Your task to perform on an android device: turn on notifications settings in the gmail app Image 0: 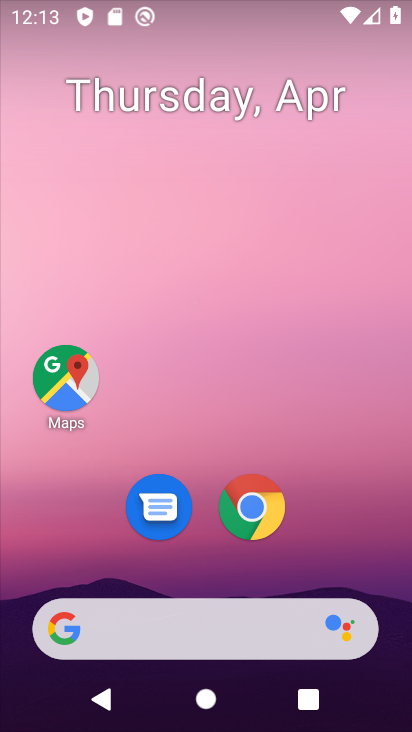
Step 0: drag from (344, 561) to (304, 6)
Your task to perform on an android device: turn on notifications settings in the gmail app Image 1: 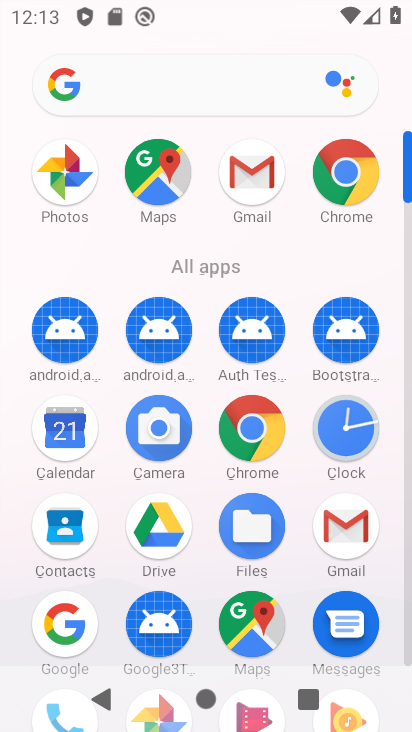
Step 1: click (252, 174)
Your task to perform on an android device: turn on notifications settings in the gmail app Image 2: 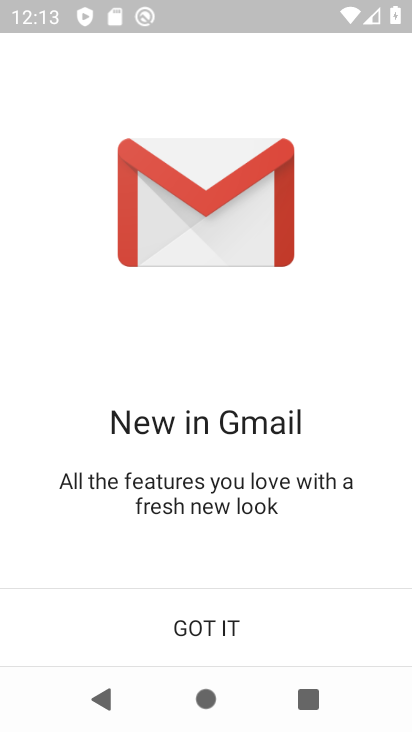
Step 2: click (204, 625)
Your task to perform on an android device: turn on notifications settings in the gmail app Image 3: 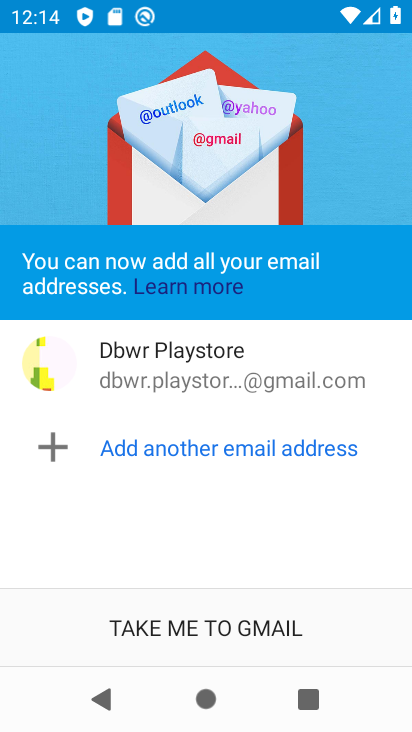
Step 3: click (207, 621)
Your task to perform on an android device: turn on notifications settings in the gmail app Image 4: 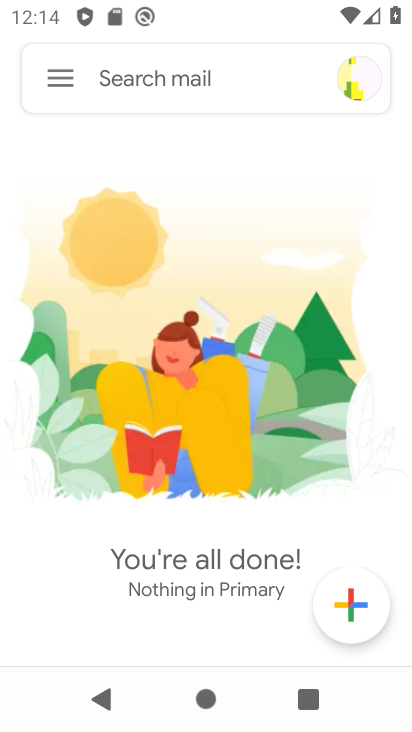
Step 4: click (65, 78)
Your task to perform on an android device: turn on notifications settings in the gmail app Image 5: 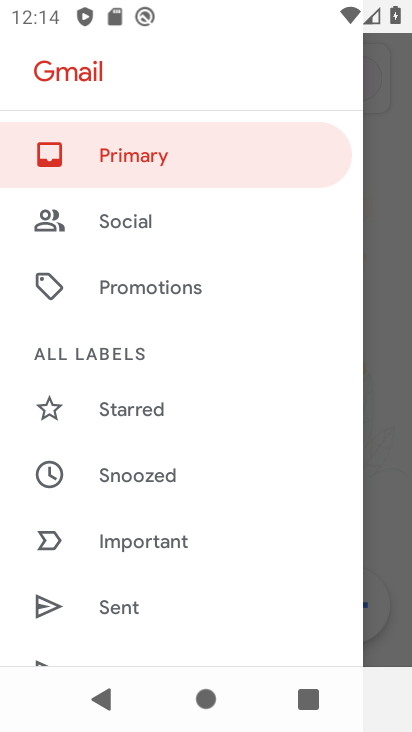
Step 5: drag from (196, 543) to (232, 419)
Your task to perform on an android device: turn on notifications settings in the gmail app Image 6: 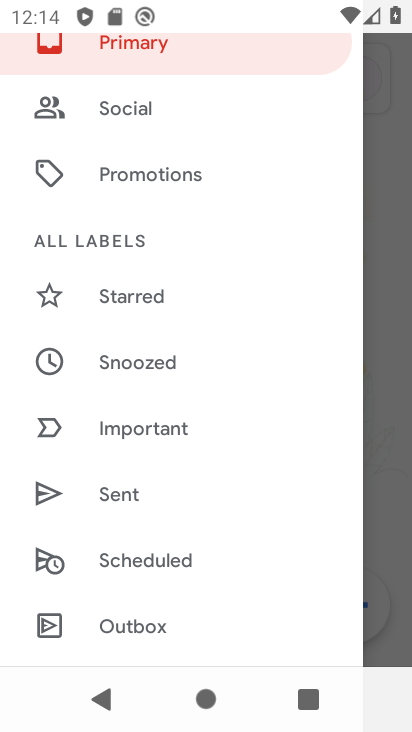
Step 6: drag from (203, 554) to (236, 470)
Your task to perform on an android device: turn on notifications settings in the gmail app Image 7: 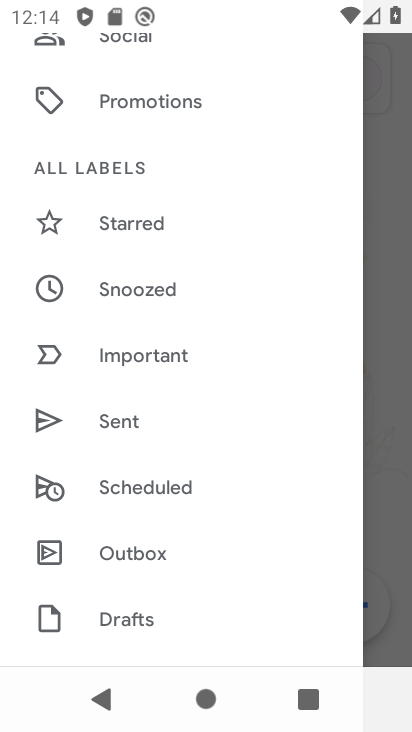
Step 7: drag from (201, 566) to (231, 456)
Your task to perform on an android device: turn on notifications settings in the gmail app Image 8: 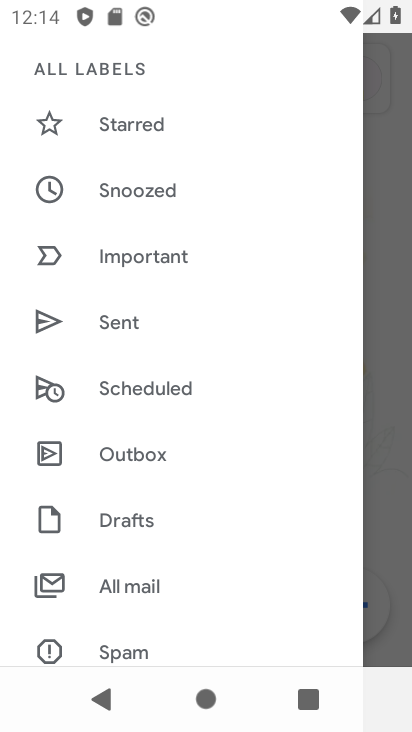
Step 8: drag from (204, 561) to (237, 464)
Your task to perform on an android device: turn on notifications settings in the gmail app Image 9: 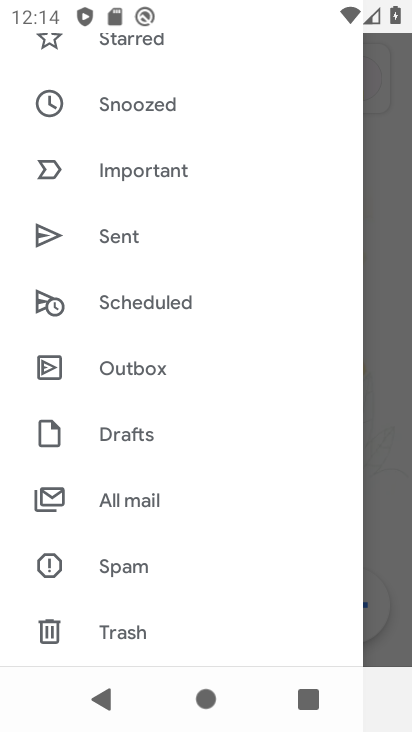
Step 9: drag from (208, 566) to (234, 470)
Your task to perform on an android device: turn on notifications settings in the gmail app Image 10: 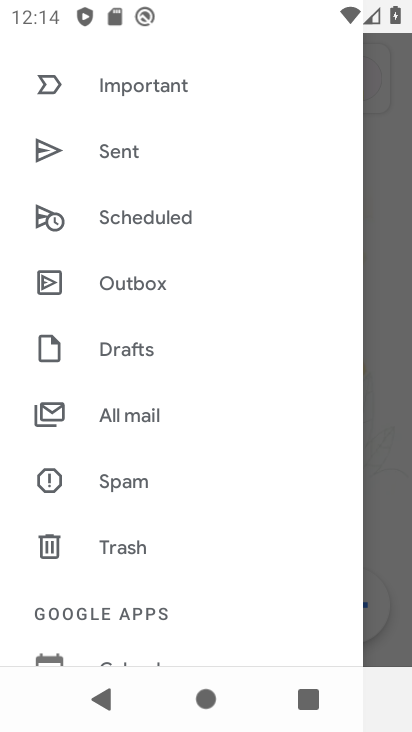
Step 10: drag from (199, 574) to (228, 490)
Your task to perform on an android device: turn on notifications settings in the gmail app Image 11: 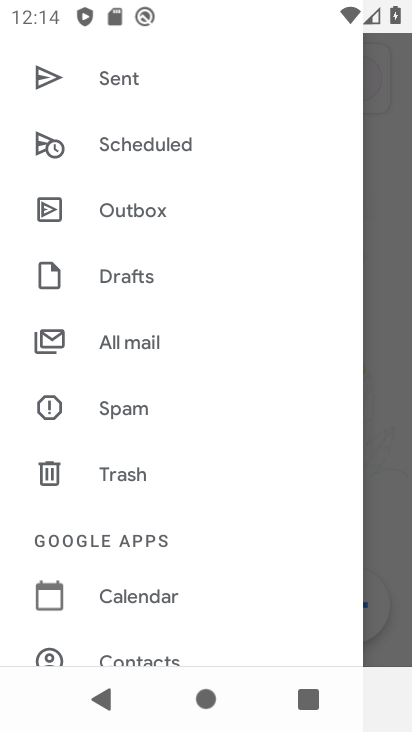
Step 11: drag from (199, 590) to (233, 496)
Your task to perform on an android device: turn on notifications settings in the gmail app Image 12: 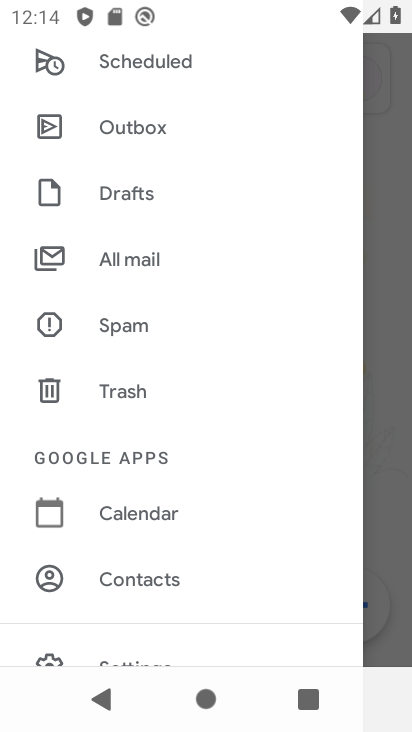
Step 12: drag from (214, 555) to (221, 476)
Your task to perform on an android device: turn on notifications settings in the gmail app Image 13: 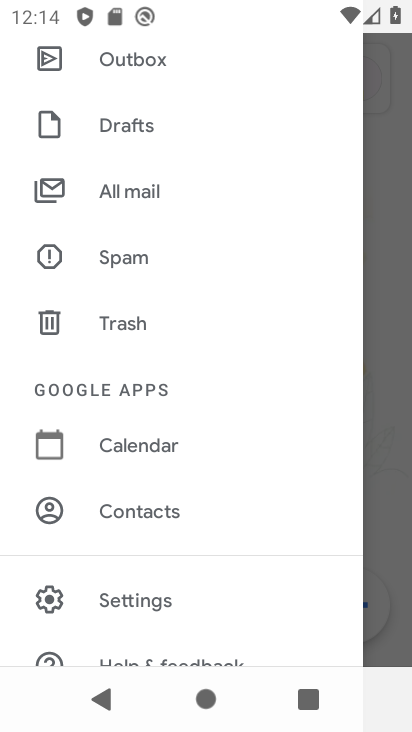
Step 13: click (158, 607)
Your task to perform on an android device: turn on notifications settings in the gmail app Image 14: 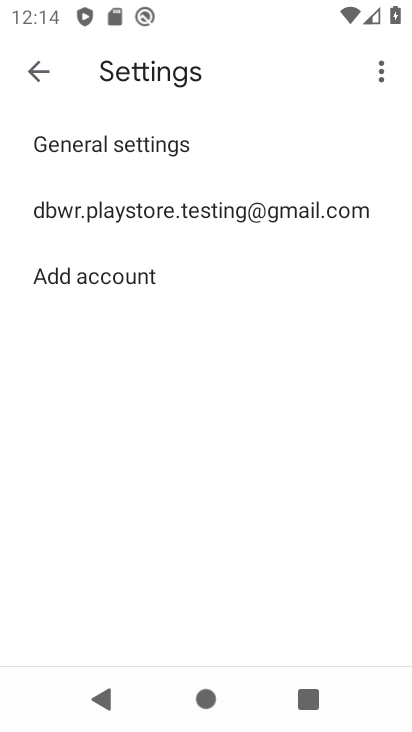
Step 14: click (259, 219)
Your task to perform on an android device: turn on notifications settings in the gmail app Image 15: 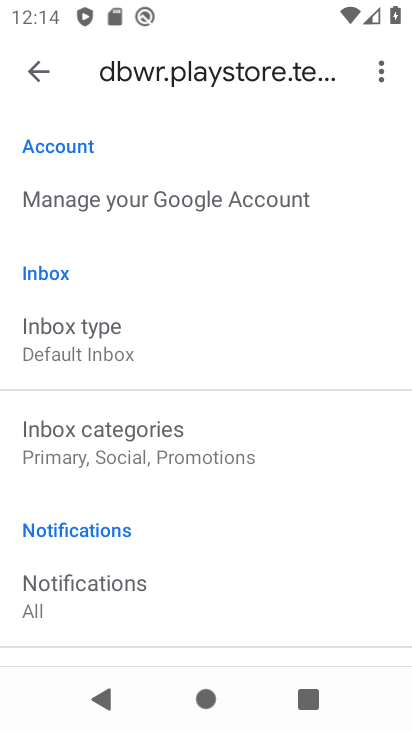
Step 15: drag from (221, 521) to (239, 331)
Your task to perform on an android device: turn on notifications settings in the gmail app Image 16: 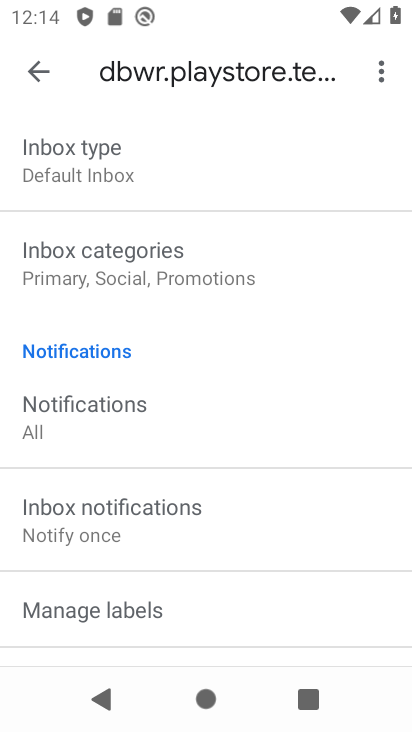
Step 16: drag from (199, 540) to (249, 366)
Your task to perform on an android device: turn on notifications settings in the gmail app Image 17: 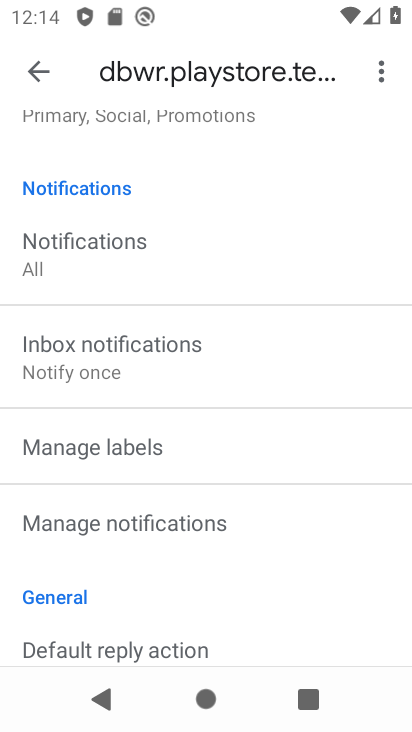
Step 17: click (163, 523)
Your task to perform on an android device: turn on notifications settings in the gmail app Image 18: 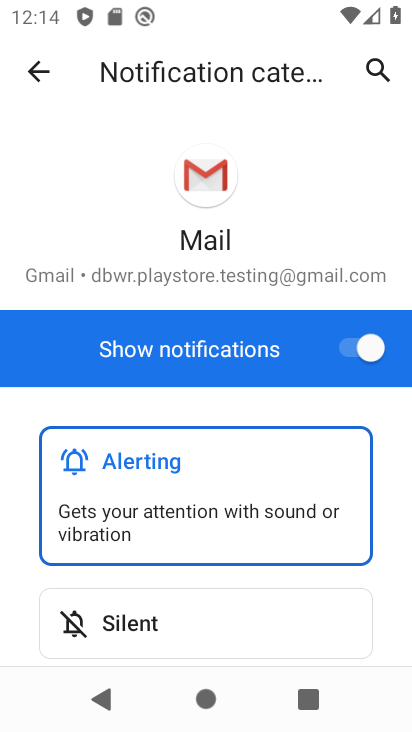
Step 18: task complete